Your task to perform on an android device: Go to settings Image 0: 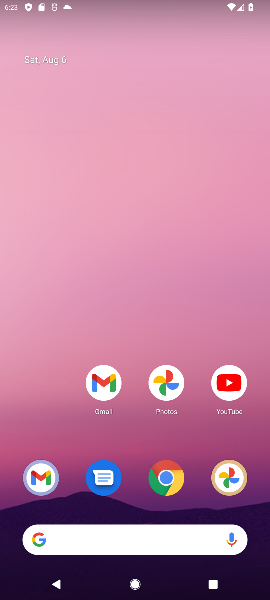
Step 0: press home button
Your task to perform on an android device: Go to settings Image 1: 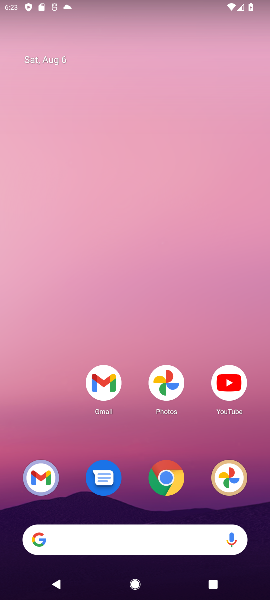
Step 1: drag from (158, 318) to (223, 0)
Your task to perform on an android device: Go to settings Image 2: 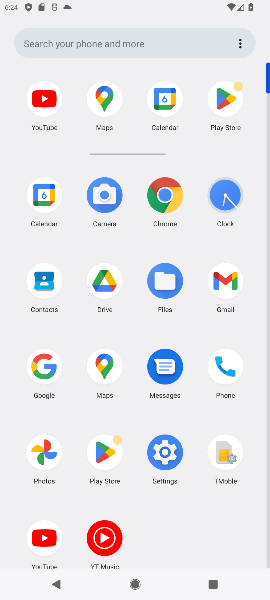
Step 2: click (176, 454)
Your task to perform on an android device: Go to settings Image 3: 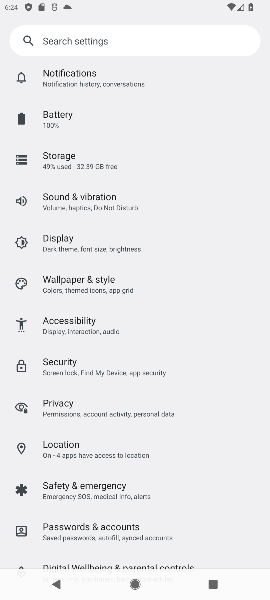
Step 3: task complete